Your task to perform on an android device: Go to calendar. Show me events next week Image 0: 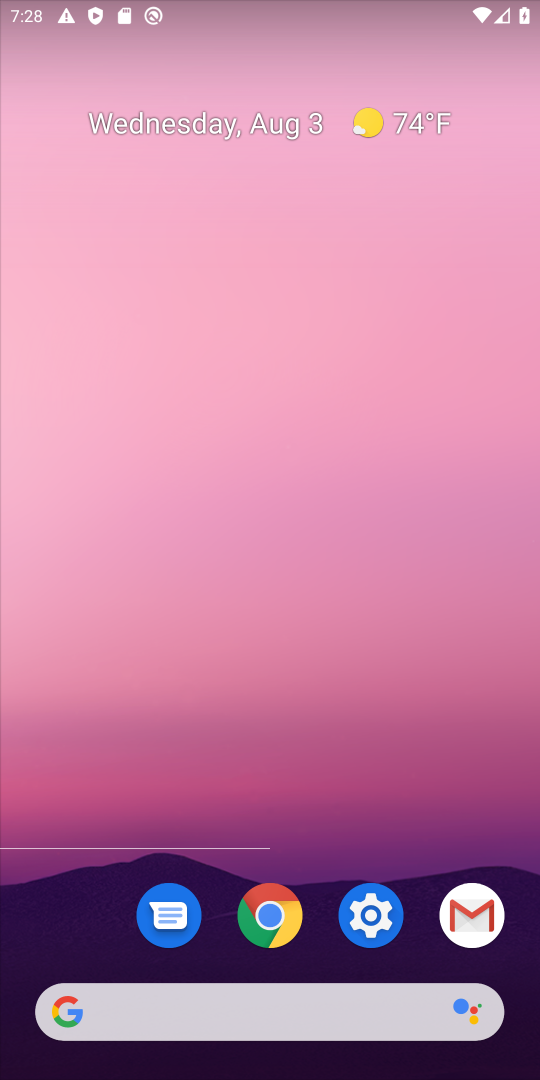
Step 0: press home button
Your task to perform on an android device: Go to calendar. Show me events next week Image 1: 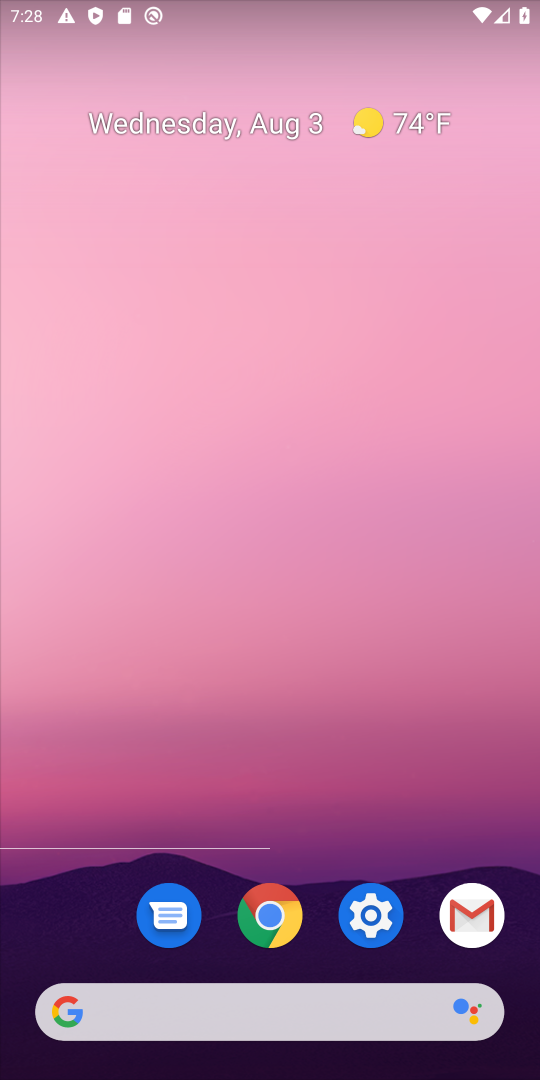
Step 1: drag from (348, 1043) to (280, 209)
Your task to perform on an android device: Go to calendar. Show me events next week Image 2: 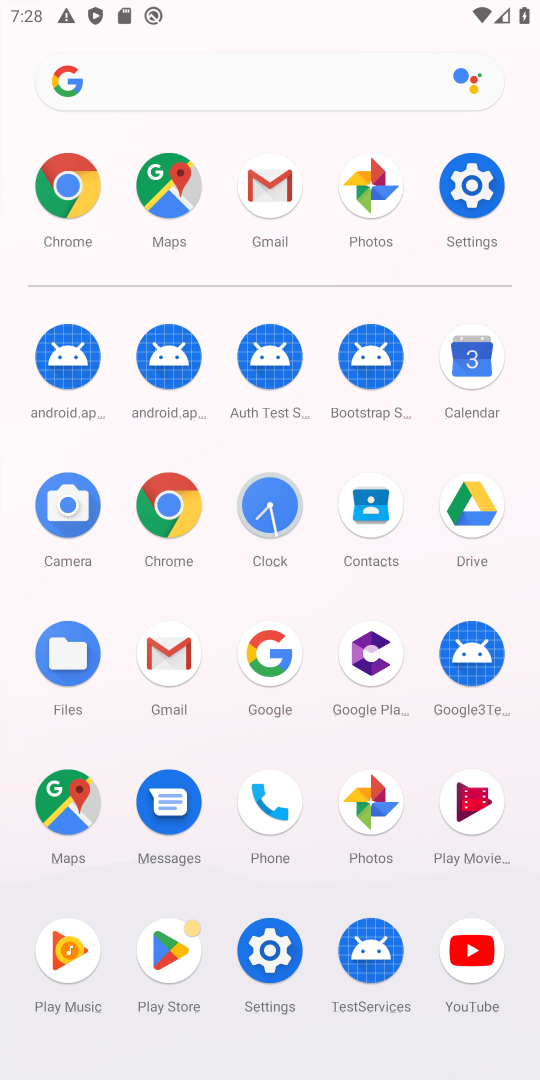
Step 2: click (452, 366)
Your task to perform on an android device: Go to calendar. Show me events next week Image 3: 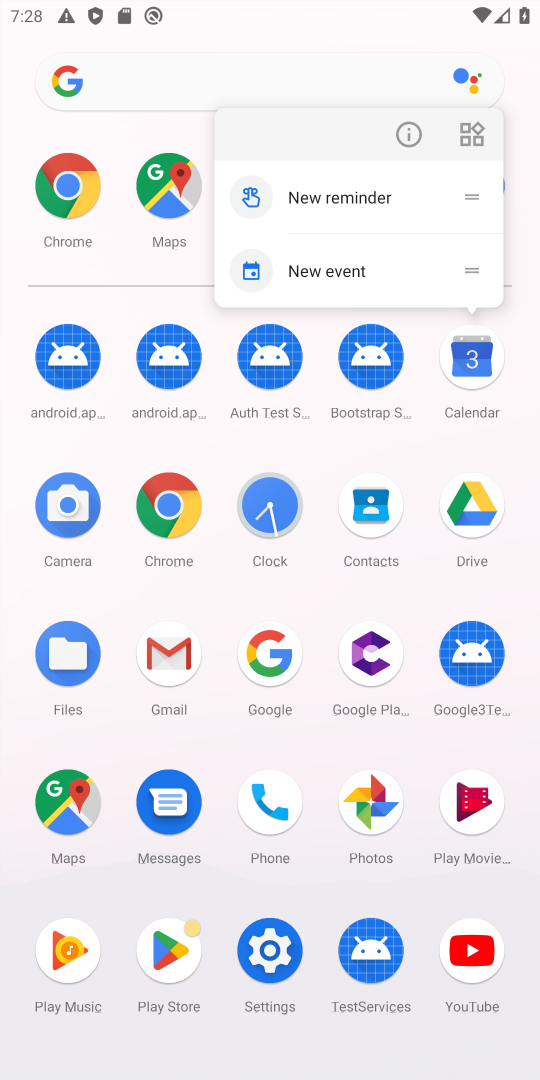
Step 3: click (460, 392)
Your task to perform on an android device: Go to calendar. Show me events next week Image 4: 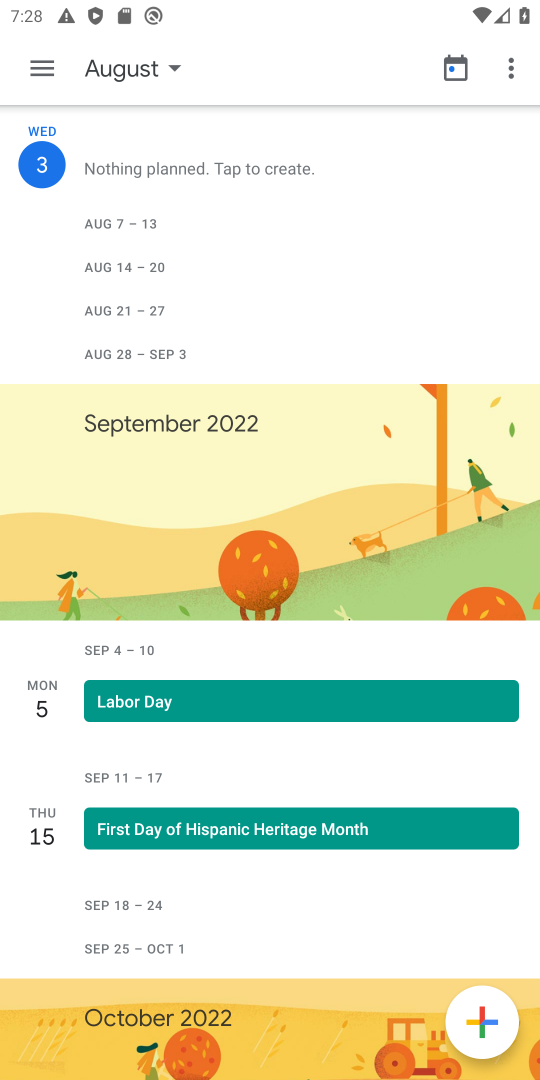
Step 4: click (53, 78)
Your task to perform on an android device: Go to calendar. Show me events next week Image 5: 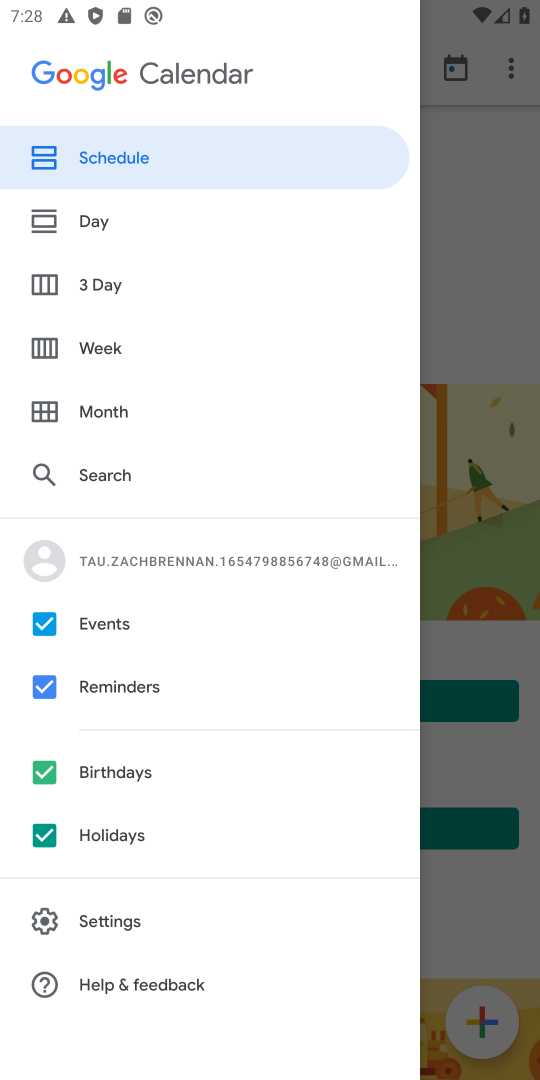
Step 5: click (146, 406)
Your task to perform on an android device: Go to calendar. Show me events next week Image 6: 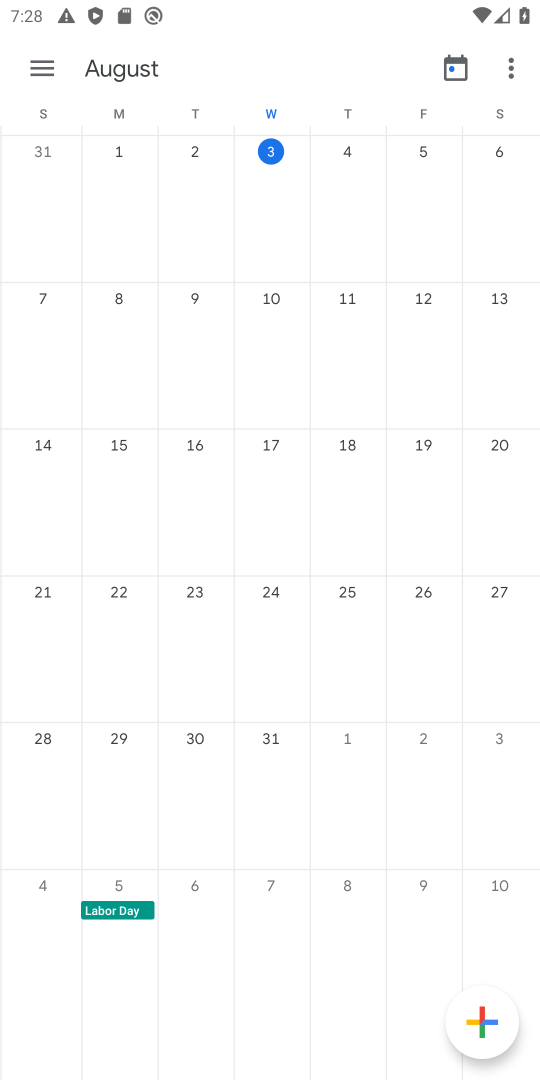
Step 6: click (109, 344)
Your task to perform on an android device: Go to calendar. Show me events next week Image 7: 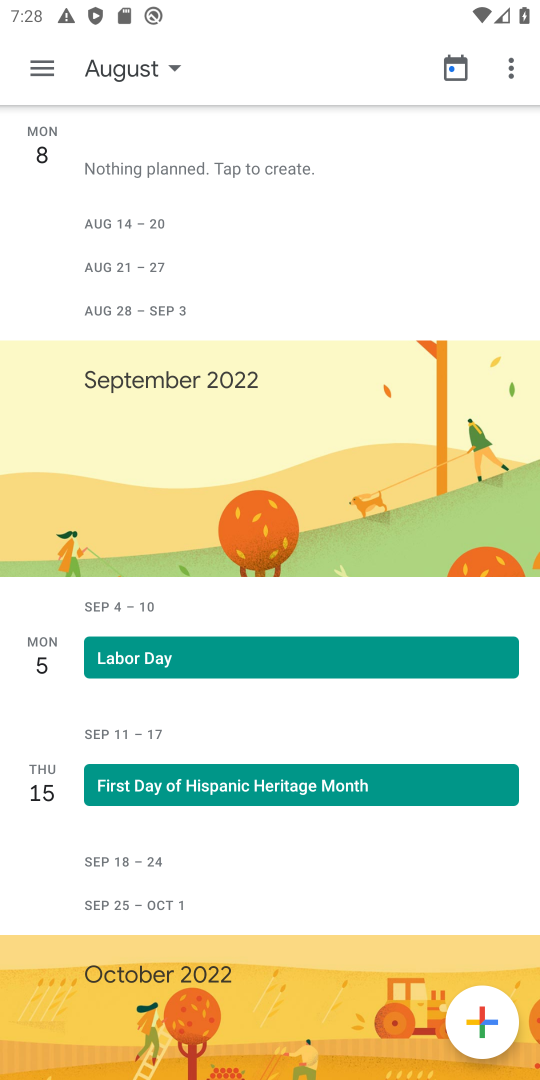
Step 7: task complete